Your task to perform on an android device: toggle show notifications on the lock screen Image 0: 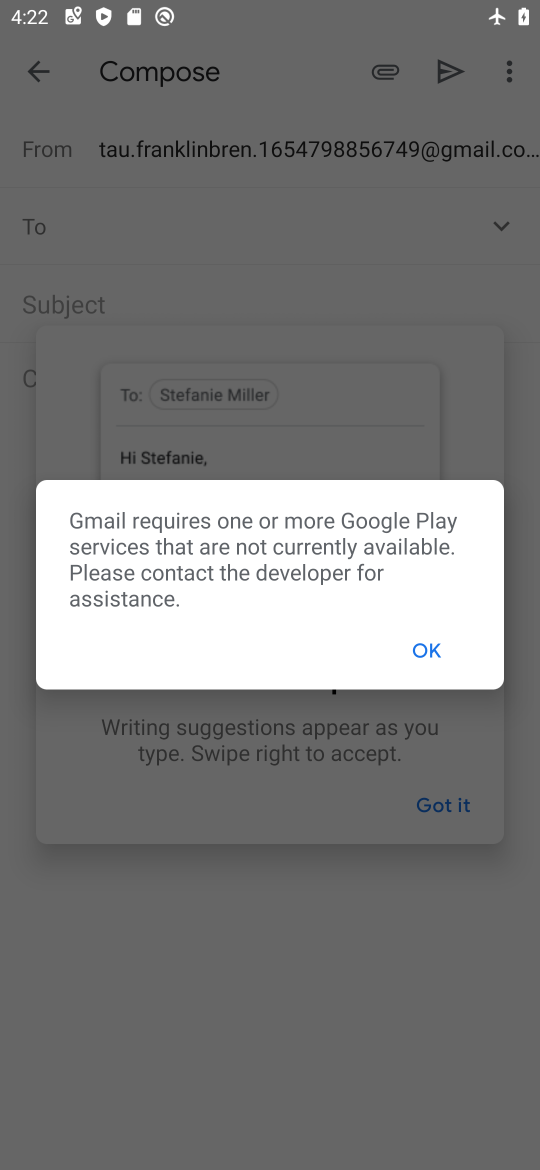
Step 0: press home button
Your task to perform on an android device: toggle show notifications on the lock screen Image 1: 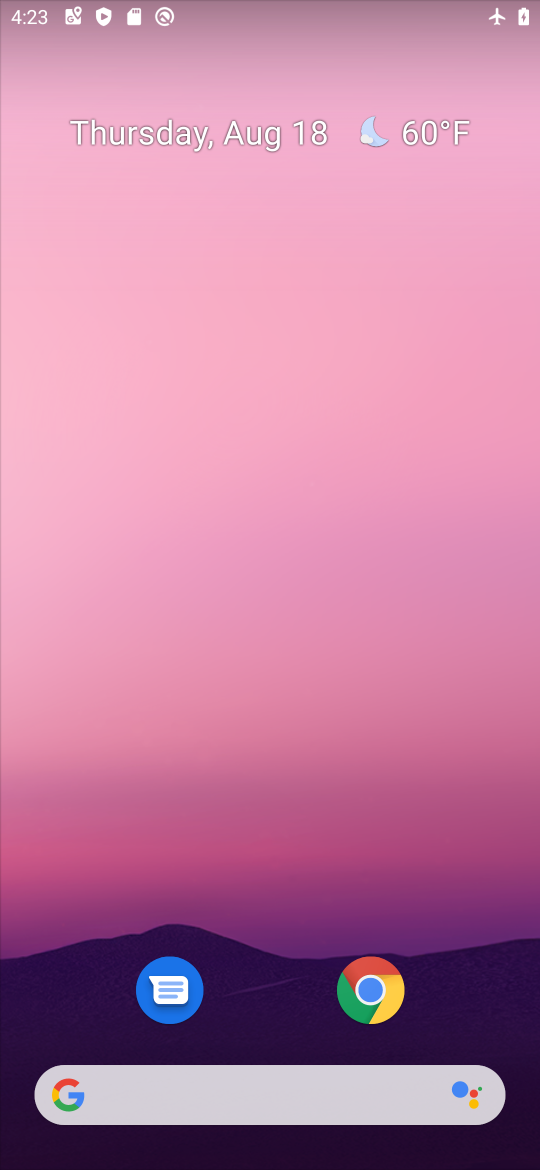
Step 1: drag from (269, 948) to (398, 123)
Your task to perform on an android device: toggle show notifications on the lock screen Image 2: 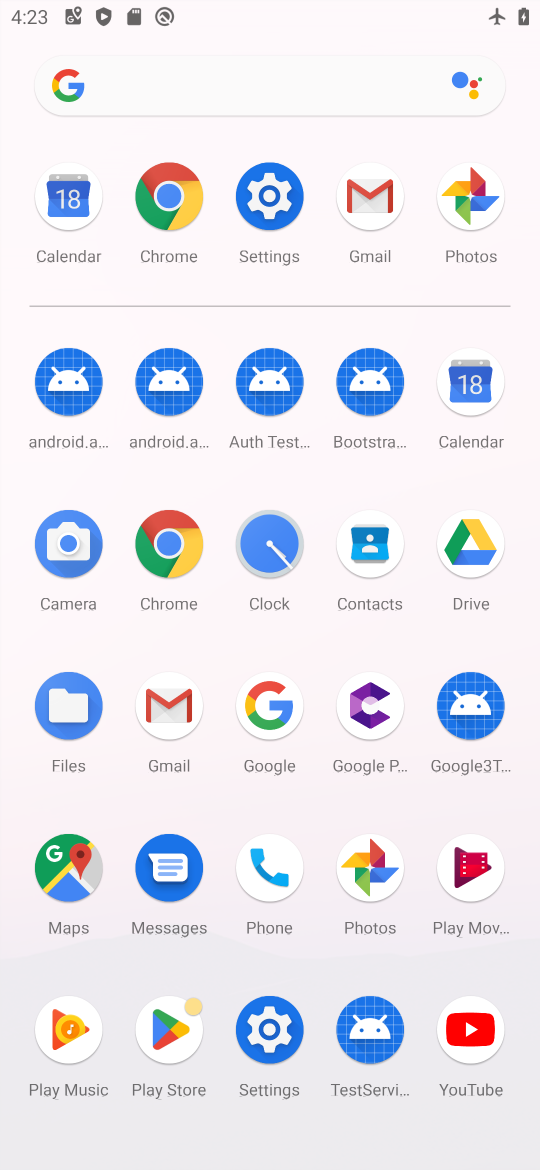
Step 2: click (267, 1021)
Your task to perform on an android device: toggle show notifications on the lock screen Image 3: 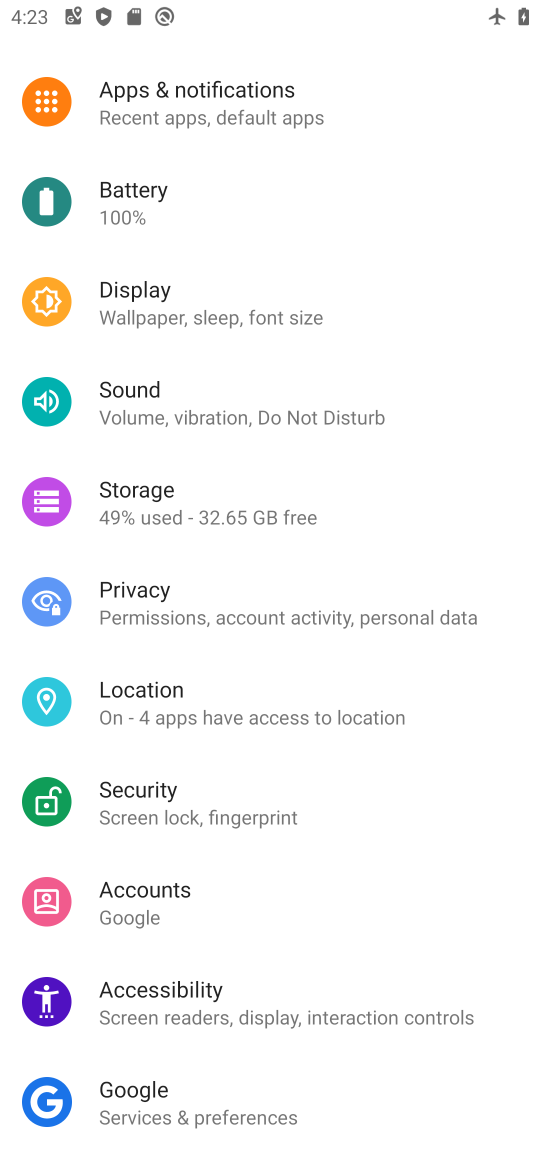
Step 3: click (253, 112)
Your task to perform on an android device: toggle show notifications on the lock screen Image 4: 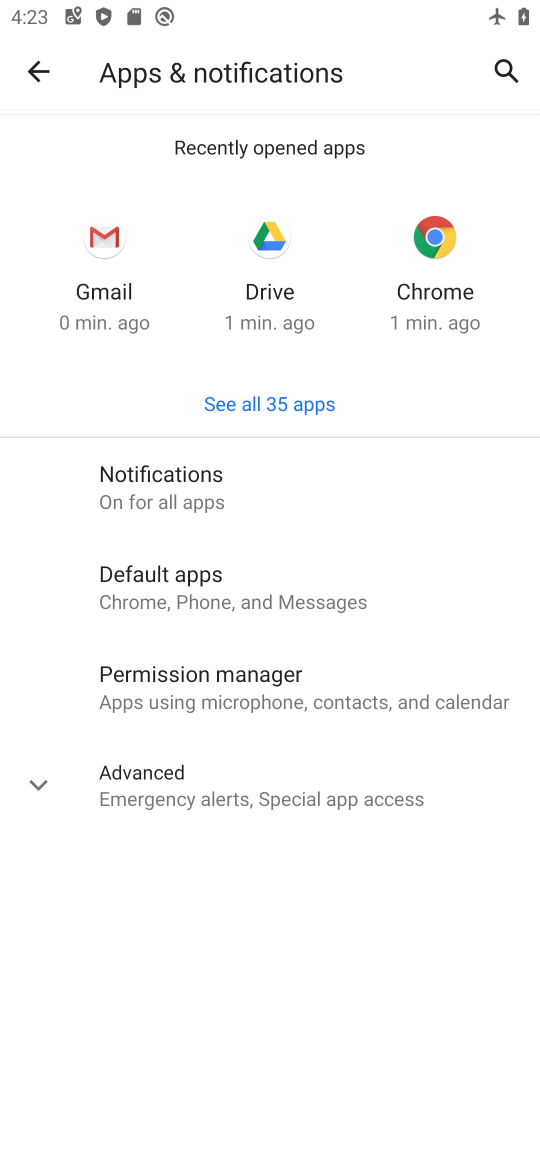
Step 4: click (209, 485)
Your task to perform on an android device: toggle show notifications on the lock screen Image 5: 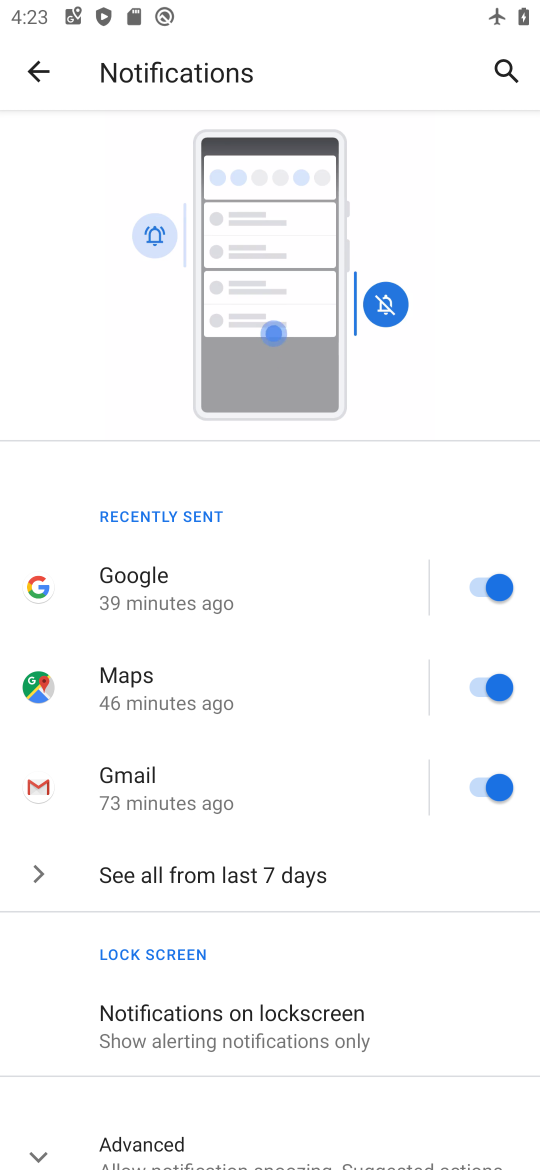
Step 5: click (207, 1001)
Your task to perform on an android device: toggle show notifications on the lock screen Image 6: 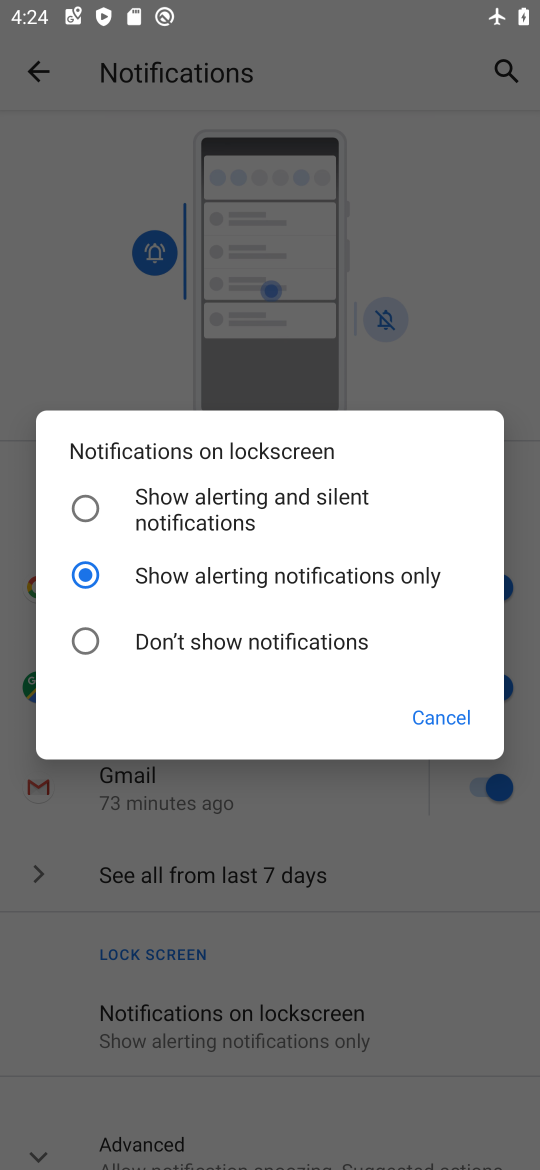
Step 6: click (173, 640)
Your task to perform on an android device: toggle show notifications on the lock screen Image 7: 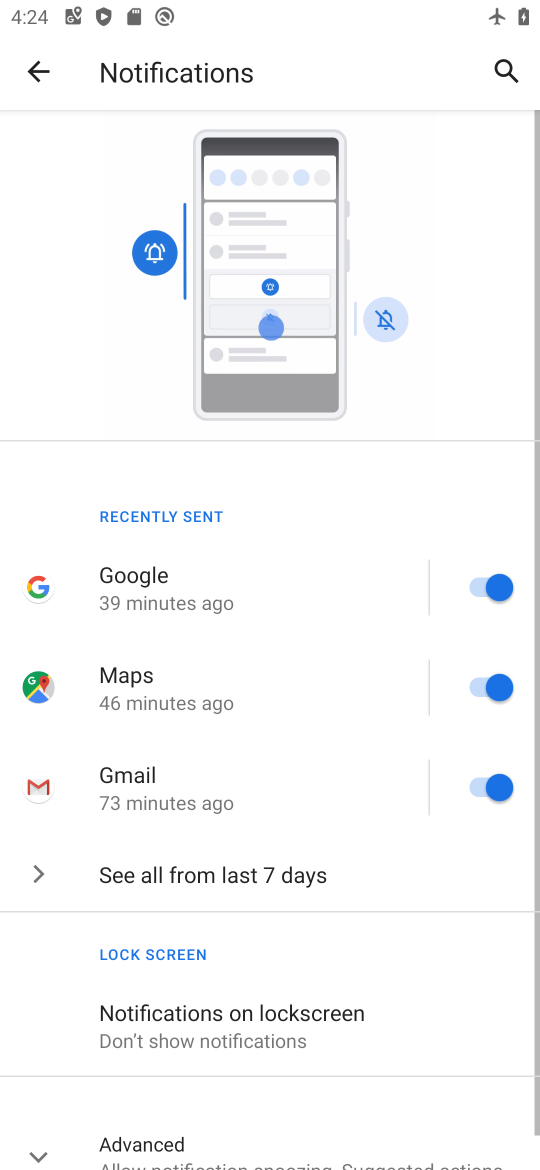
Step 7: task complete